Your task to perform on an android device: Go to Google maps Image 0: 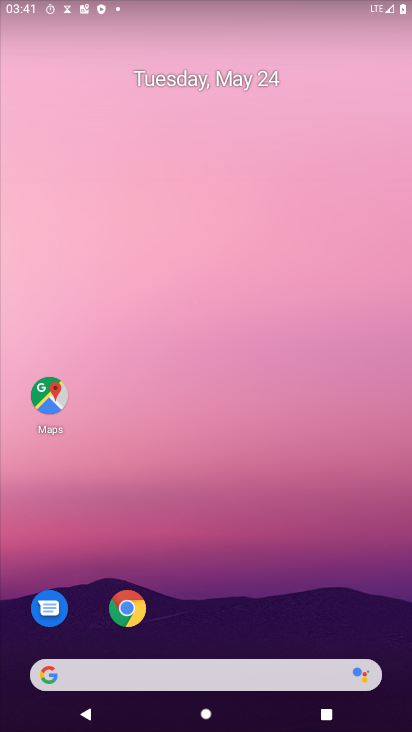
Step 0: click (51, 402)
Your task to perform on an android device: Go to Google maps Image 1: 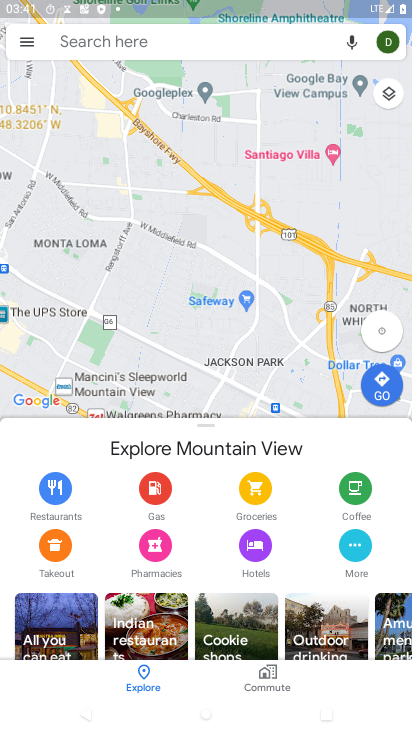
Step 1: task complete